Your task to perform on an android device: Search for "razer nari" on amazon.com, select the first entry, and add it to the cart. Image 0: 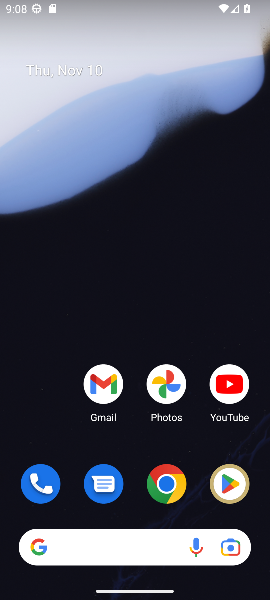
Step 0: click (165, 491)
Your task to perform on an android device: Search for "razer nari" on amazon.com, select the first entry, and add it to the cart. Image 1: 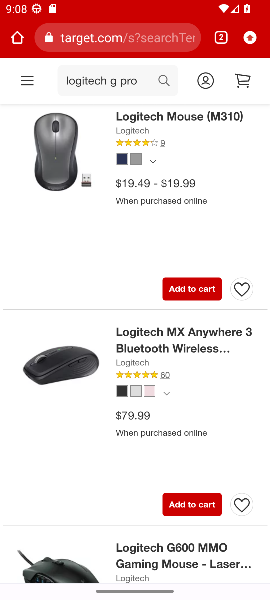
Step 1: click (129, 31)
Your task to perform on an android device: Search for "razer nari" on amazon.com, select the first entry, and add it to the cart. Image 2: 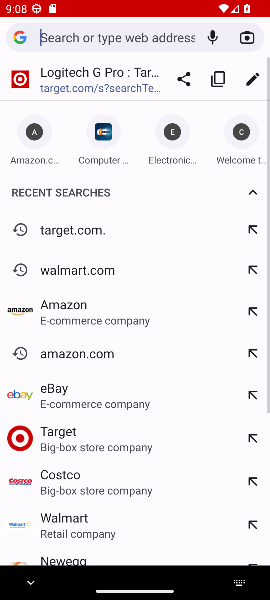
Step 2: click (36, 153)
Your task to perform on an android device: Search for "razer nari" on amazon.com, select the first entry, and add it to the cart. Image 3: 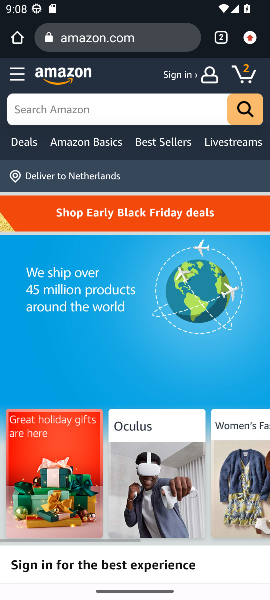
Step 3: click (64, 119)
Your task to perform on an android device: Search for "razer nari" on amazon.com, select the first entry, and add it to the cart. Image 4: 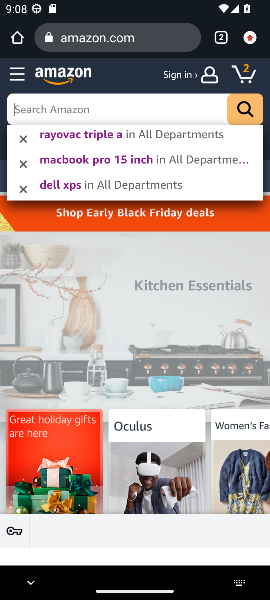
Step 4: type "razer nari"
Your task to perform on an android device: Search for "razer nari" on amazon.com, select the first entry, and add it to the cart. Image 5: 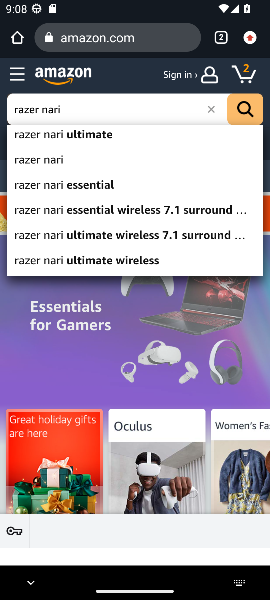
Step 5: click (47, 160)
Your task to perform on an android device: Search for "razer nari" on amazon.com, select the first entry, and add it to the cart. Image 6: 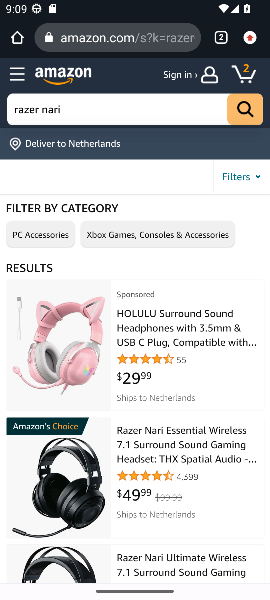
Step 6: task complete